Your task to perform on an android device: toggle notification dots Image 0: 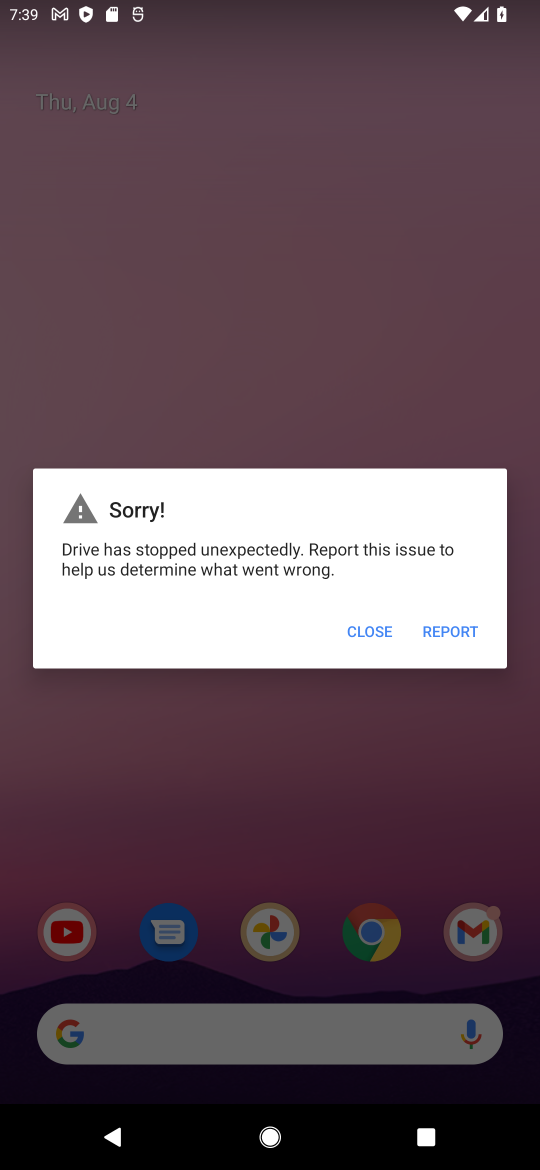
Step 0: click (378, 634)
Your task to perform on an android device: toggle notification dots Image 1: 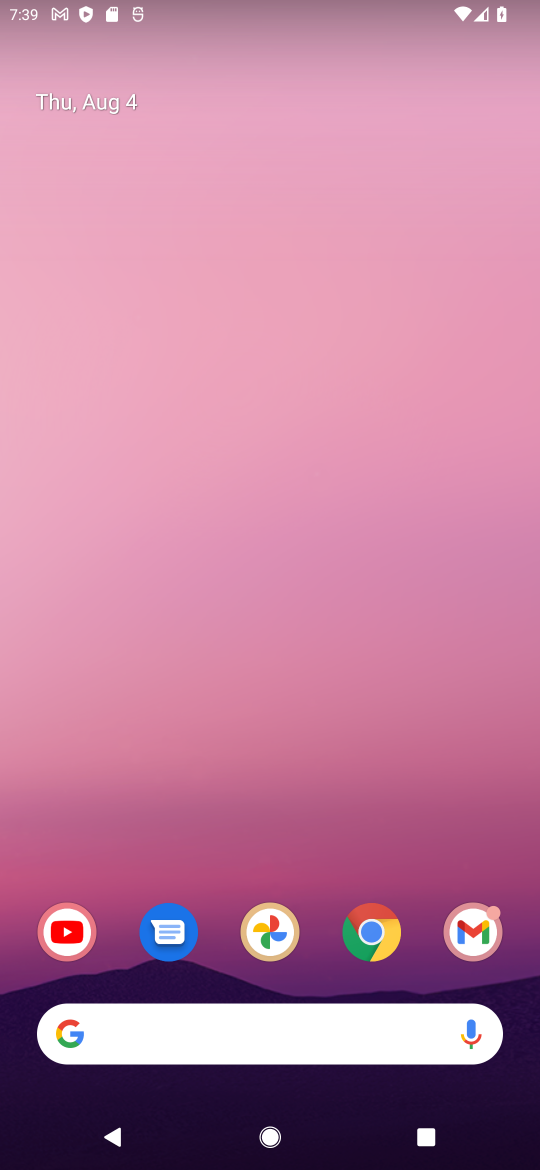
Step 1: drag from (221, 725) to (172, 312)
Your task to perform on an android device: toggle notification dots Image 2: 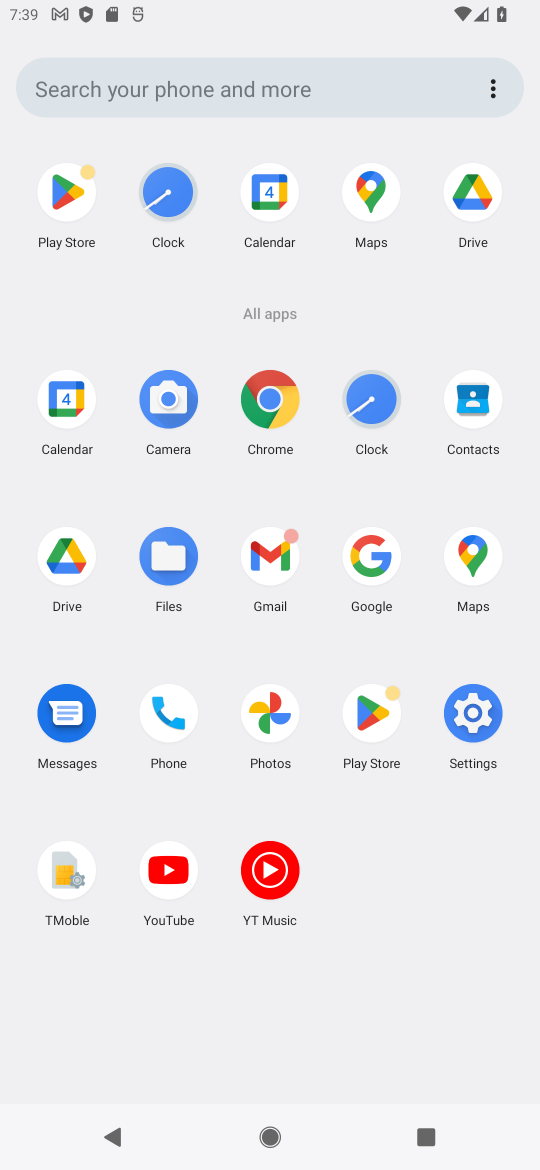
Step 2: click (470, 702)
Your task to perform on an android device: toggle notification dots Image 3: 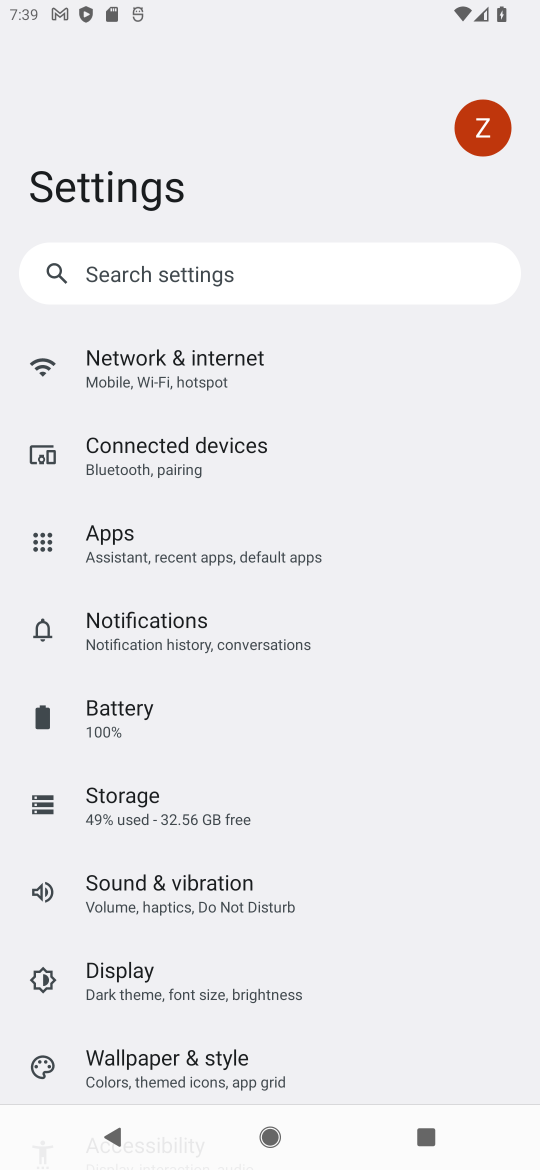
Step 3: click (259, 641)
Your task to perform on an android device: toggle notification dots Image 4: 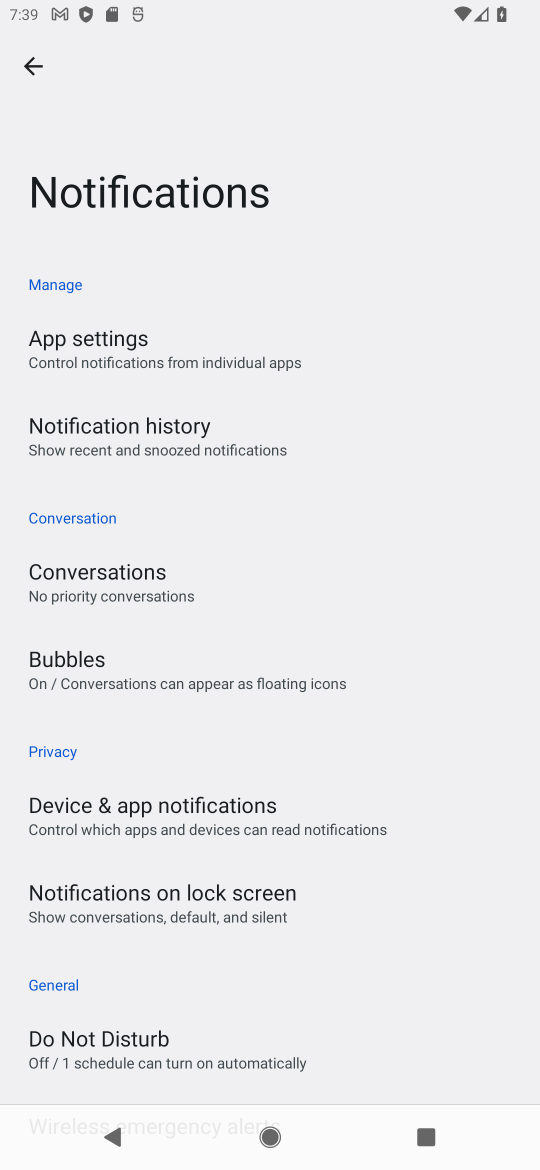
Step 4: drag from (227, 890) to (278, 48)
Your task to perform on an android device: toggle notification dots Image 5: 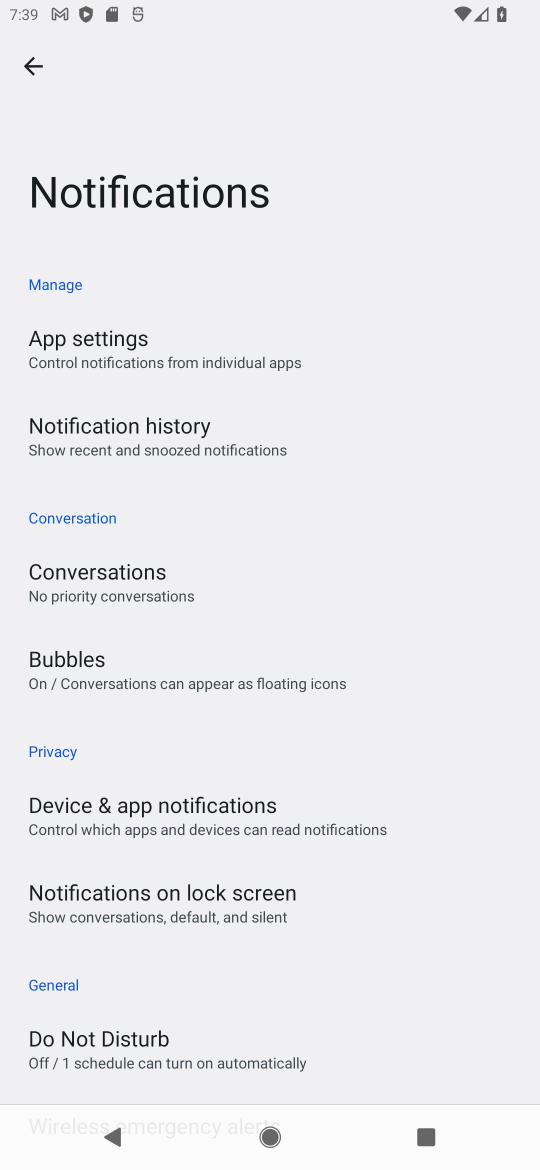
Step 5: drag from (363, 829) to (363, 251)
Your task to perform on an android device: toggle notification dots Image 6: 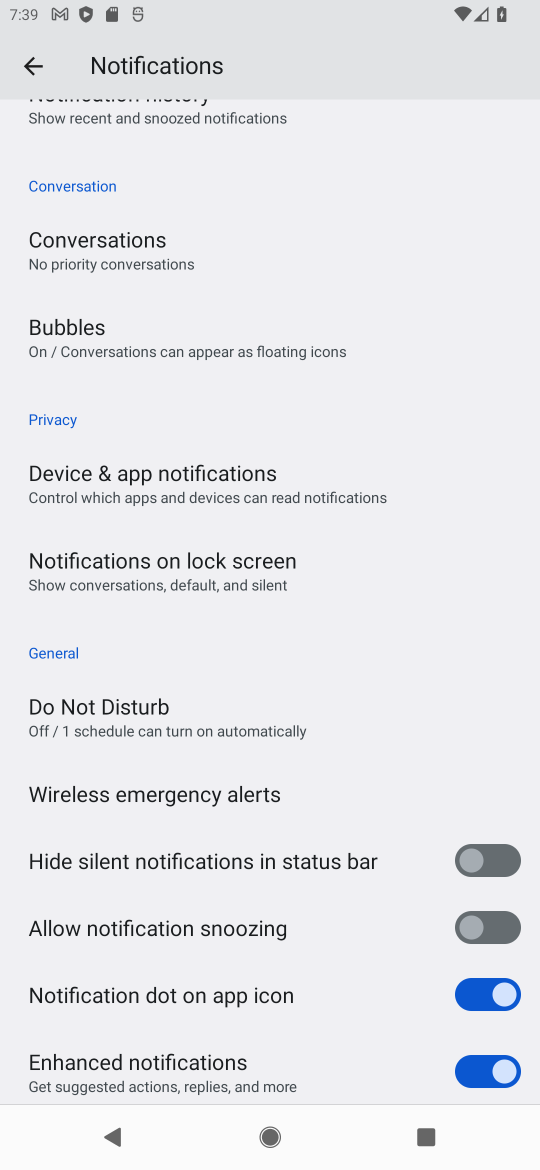
Step 6: click (471, 998)
Your task to perform on an android device: toggle notification dots Image 7: 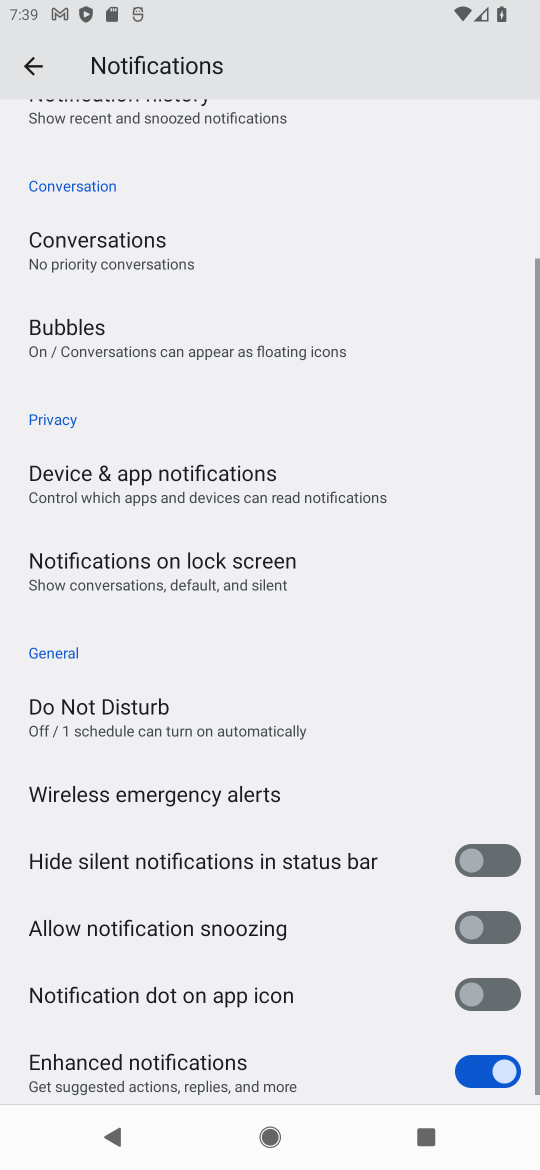
Step 7: task complete